Your task to perform on an android device: turn off translation in the chrome app Image 0: 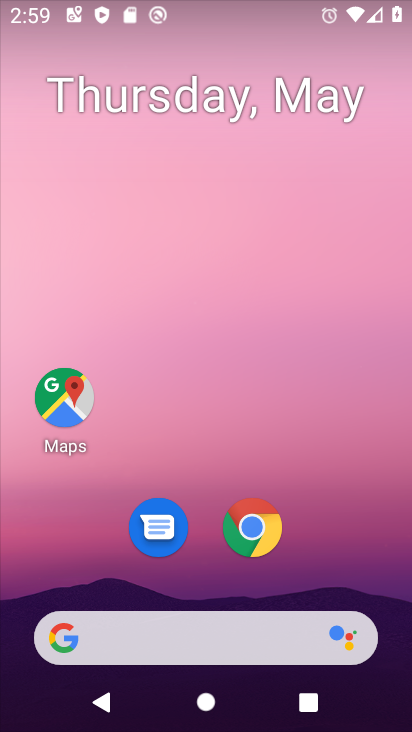
Step 0: click (263, 540)
Your task to perform on an android device: turn off translation in the chrome app Image 1: 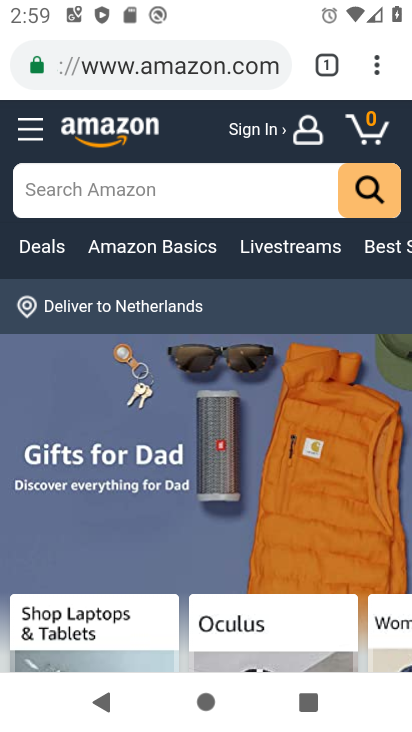
Step 1: drag from (384, 72) to (308, 582)
Your task to perform on an android device: turn off translation in the chrome app Image 2: 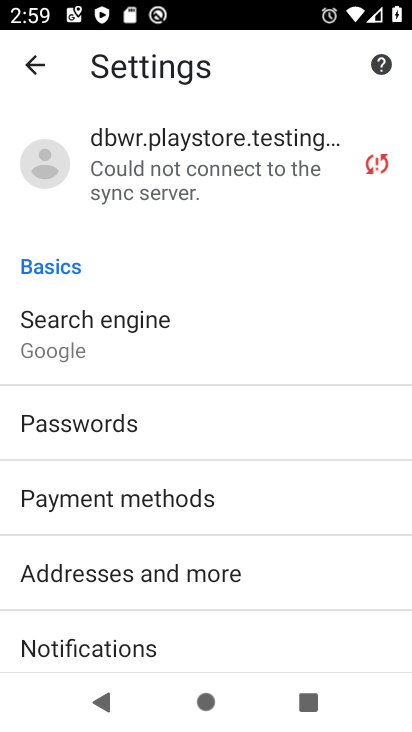
Step 2: drag from (199, 598) to (291, 247)
Your task to perform on an android device: turn off translation in the chrome app Image 3: 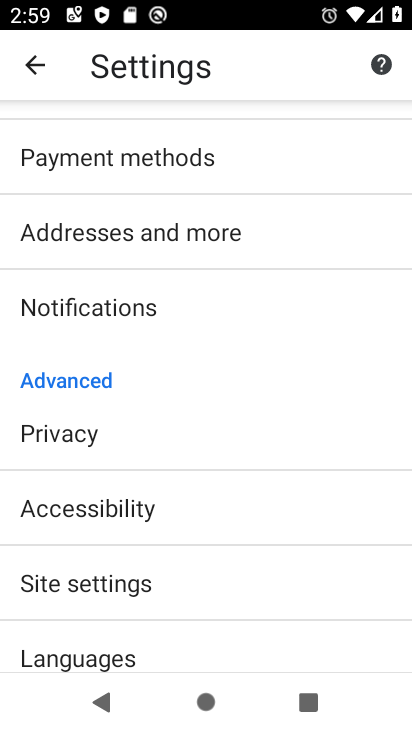
Step 3: drag from (187, 587) to (251, 439)
Your task to perform on an android device: turn off translation in the chrome app Image 4: 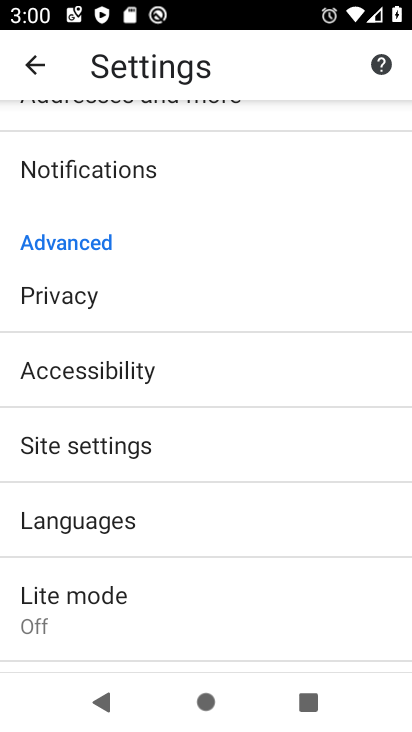
Step 4: click (131, 535)
Your task to perform on an android device: turn off translation in the chrome app Image 5: 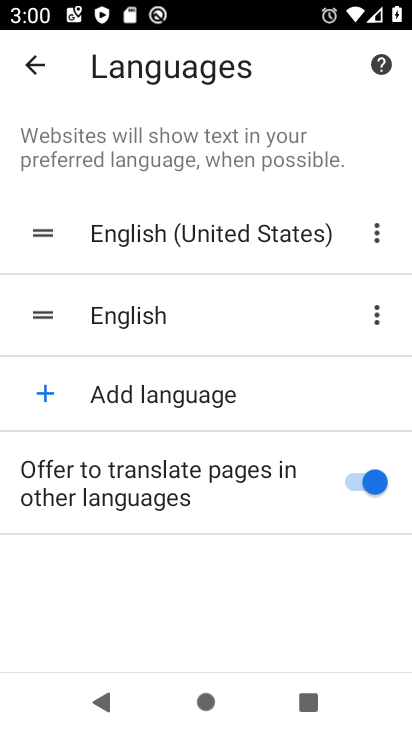
Step 5: click (361, 483)
Your task to perform on an android device: turn off translation in the chrome app Image 6: 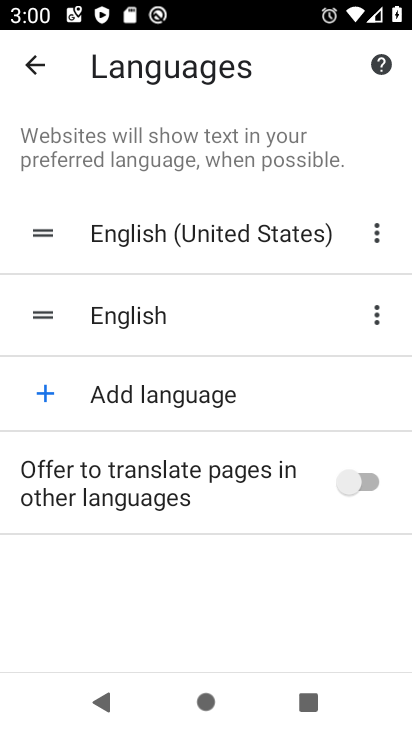
Step 6: task complete